Your task to perform on an android device: toggle sleep mode Image 0: 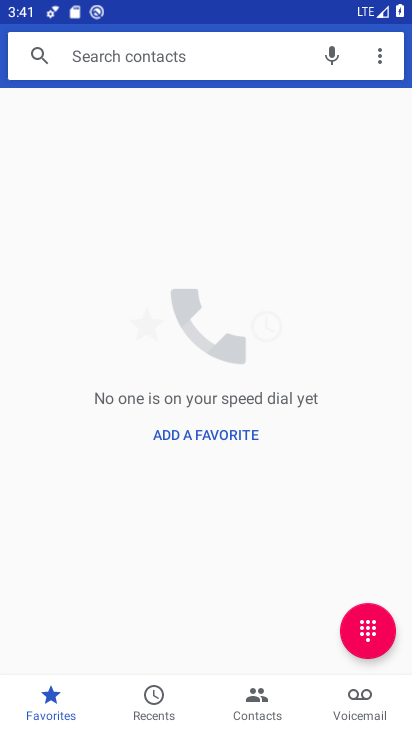
Step 0: press home button
Your task to perform on an android device: toggle sleep mode Image 1: 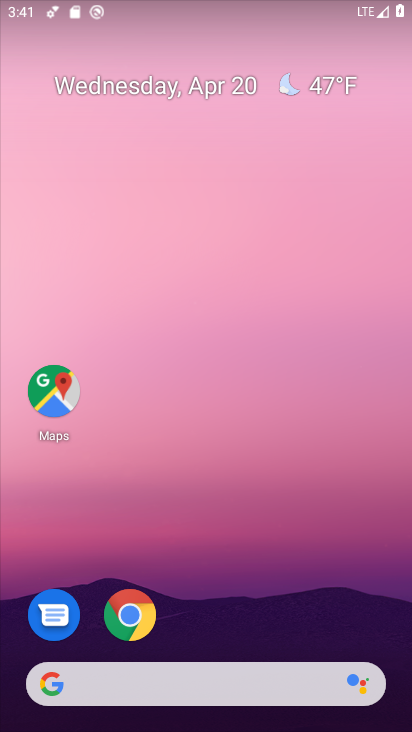
Step 1: drag from (199, 625) to (206, 147)
Your task to perform on an android device: toggle sleep mode Image 2: 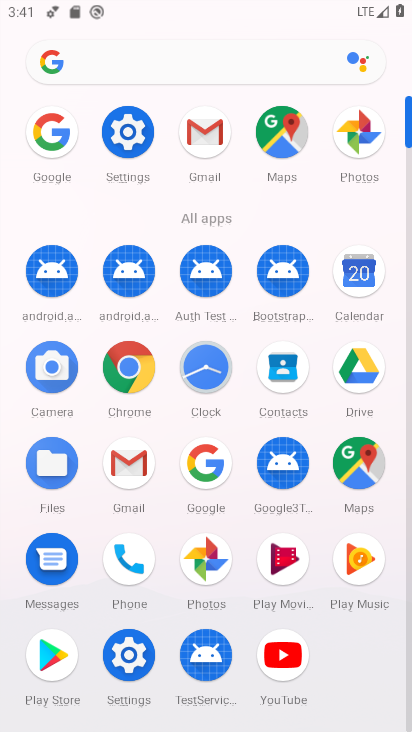
Step 2: click (126, 147)
Your task to perform on an android device: toggle sleep mode Image 3: 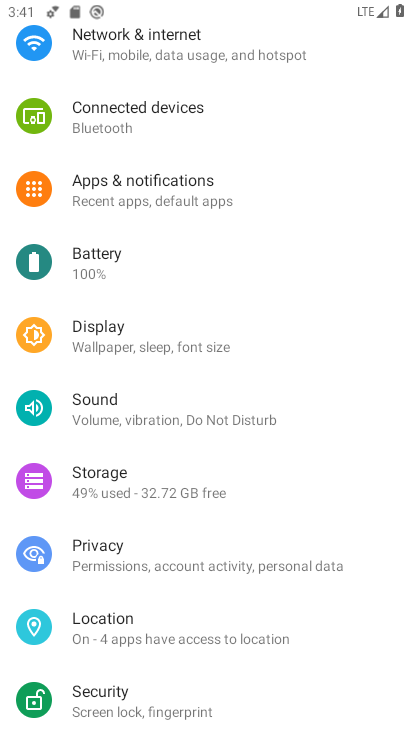
Step 3: click (176, 337)
Your task to perform on an android device: toggle sleep mode Image 4: 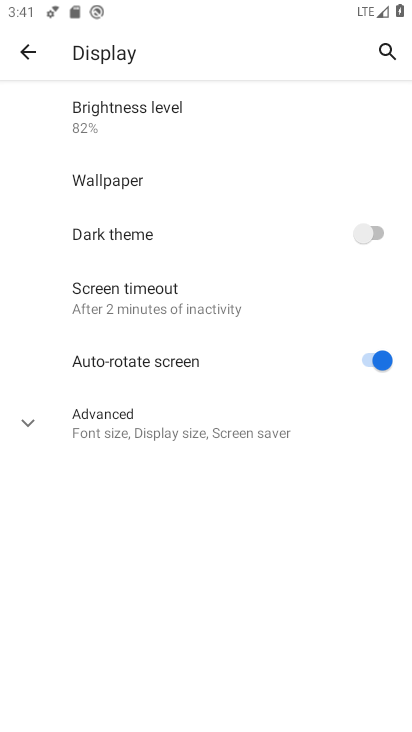
Step 4: click (158, 308)
Your task to perform on an android device: toggle sleep mode Image 5: 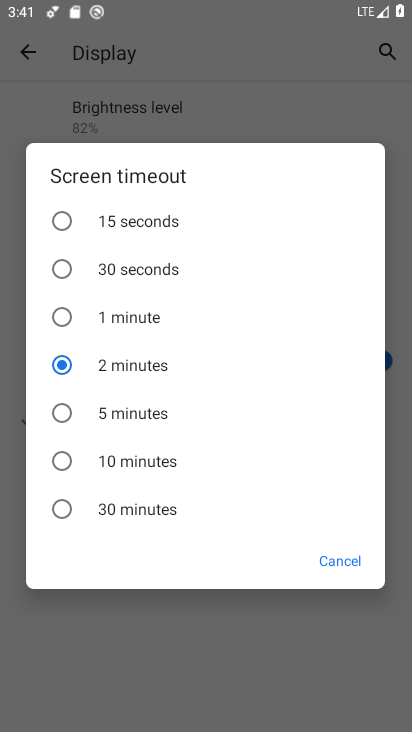
Step 5: click (123, 458)
Your task to perform on an android device: toggle sleep mode Image 6: 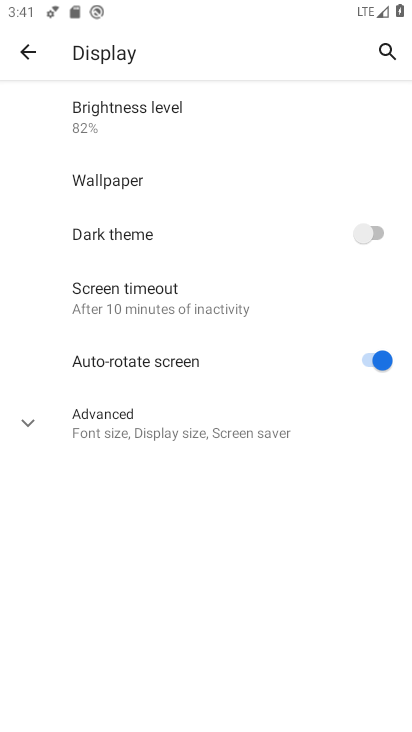
Step 6: task complete